Your task to perform on an android device: see creations saved in the google photos Image 0: 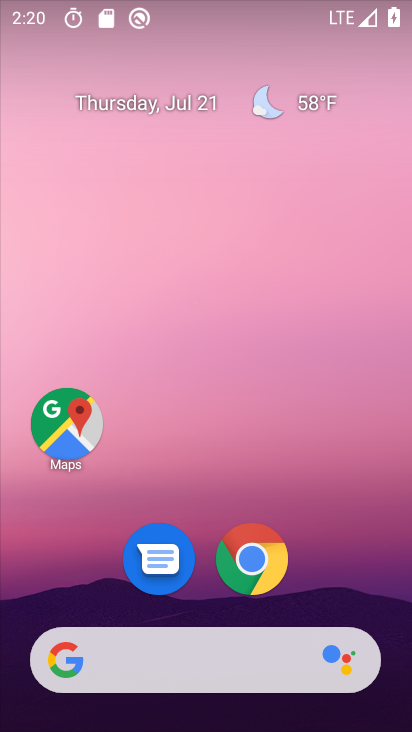
Step 0: drag from (376, 564) to (346, 124)
Your task to perform on an android device: see creations saved in the google photos Image 1: 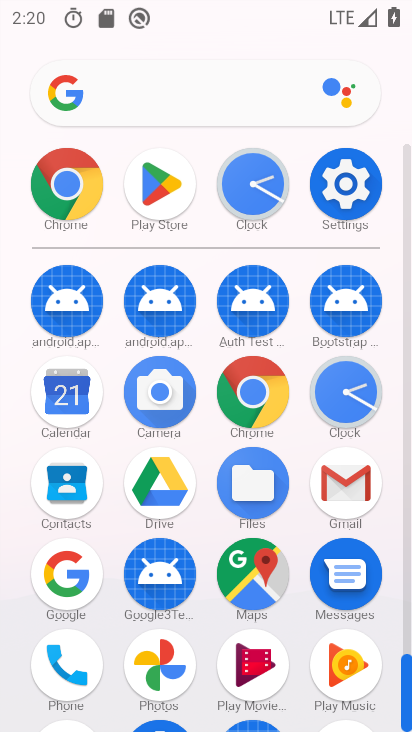
Step 1: click (176, 669)
Your task to perform on an android device: see creations saved in the google photos Image 2: 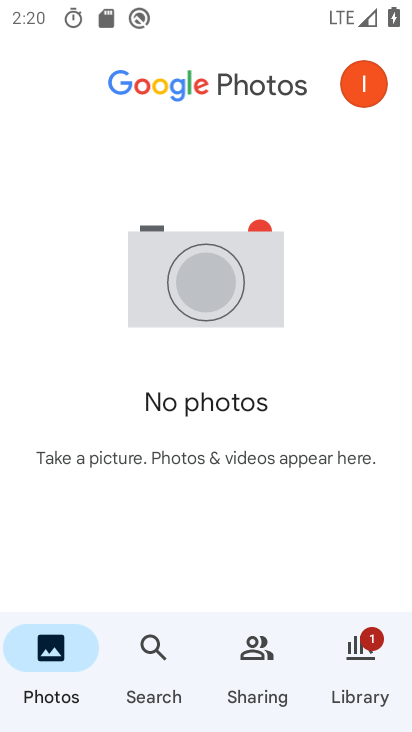
Step 2: click (154, 673)
Your task to perform on an android device: see creations saved in the google photos Image 3: 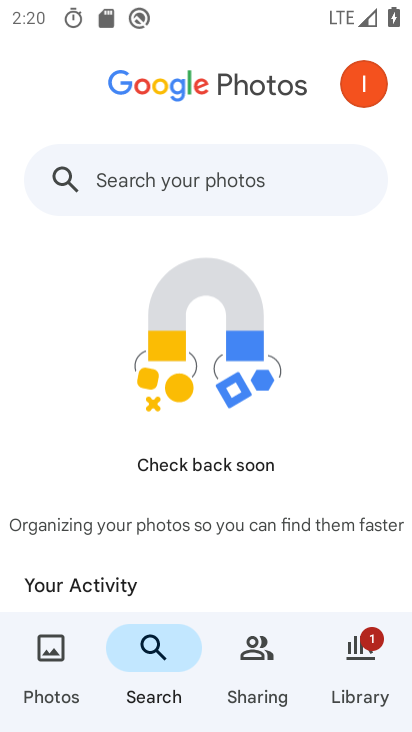
Step 3: drag from (251, 491) to (255, 389)
Your task to perform on an android device: see creations saved in the google photos Image 4: 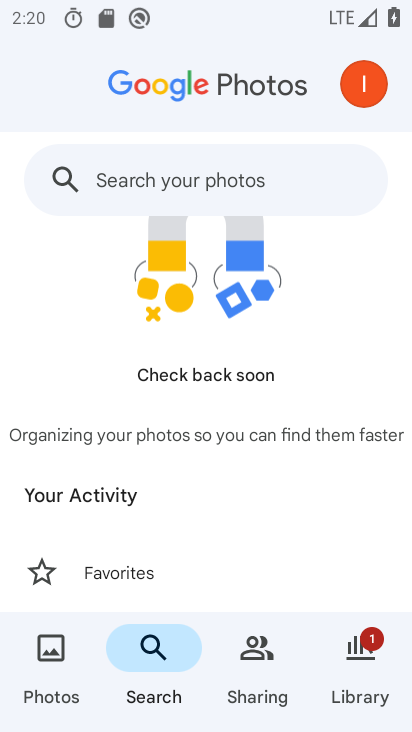
Step 4: drag from (227, 505) to (242, 382)
Your task to perform on an android device: see creations saved in the google photos Image 5: 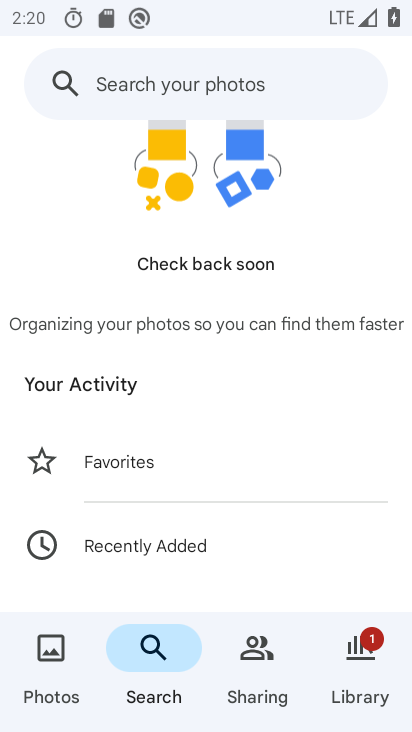
Step 5: drag from (230, 479) to (247, 358)
Your task to perform on an android device: see creations saved in the google photos Image 6: 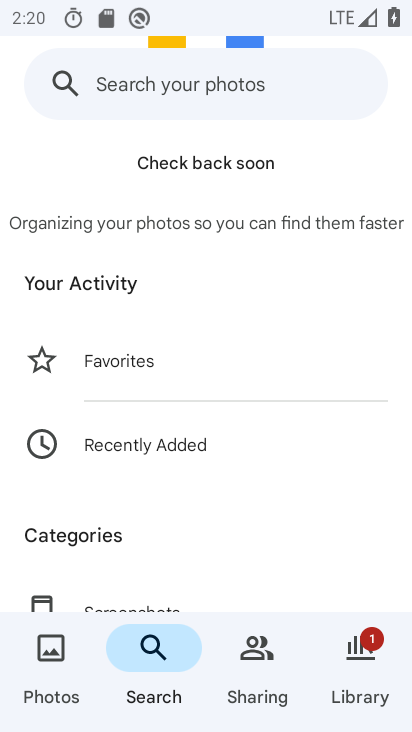
Step 6: drag from (224, 497) to (233, 357)
Your task to perform on an android device: see creations saved in the google photos Image 7: 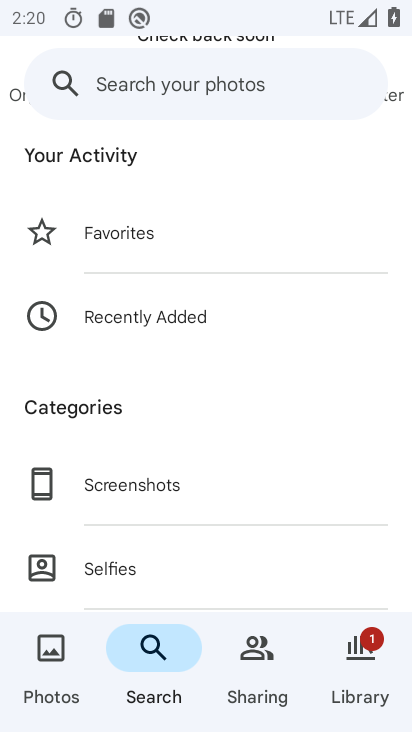
Step 7: drag from (233, 529) to (248, 367)
Your task to perform on an android device: see creations saved in the google photos Image 8: 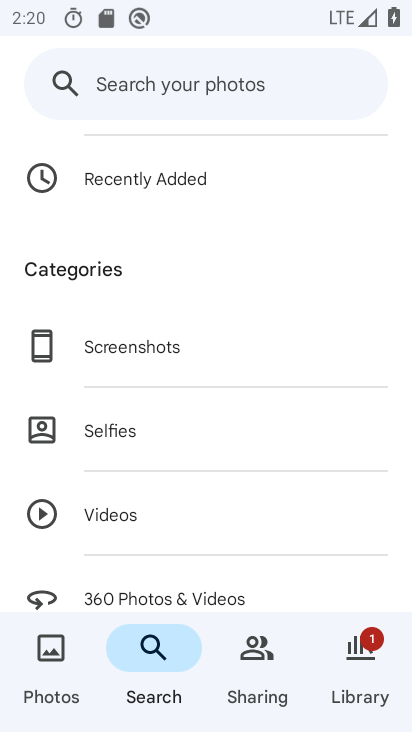
Step 8: drag from (225, 517) to (249, 361)
Your task to perform on an android device: see creations saved in the google photos Image 9: 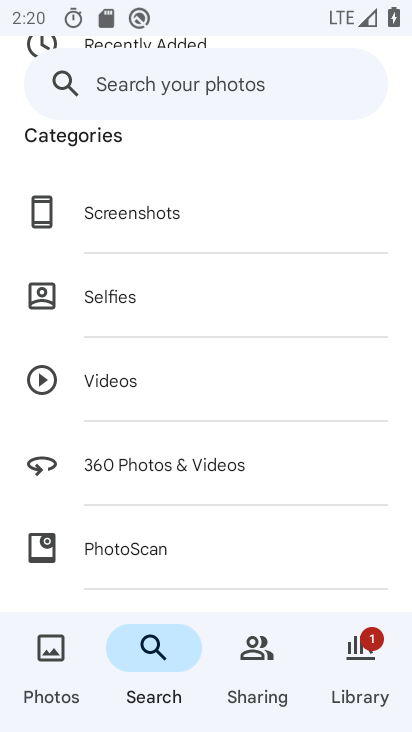
Step 9: drag from (255, 524) to (262, 371)
Your task to perform on an android device: see creations saved in the google photos Image 10: 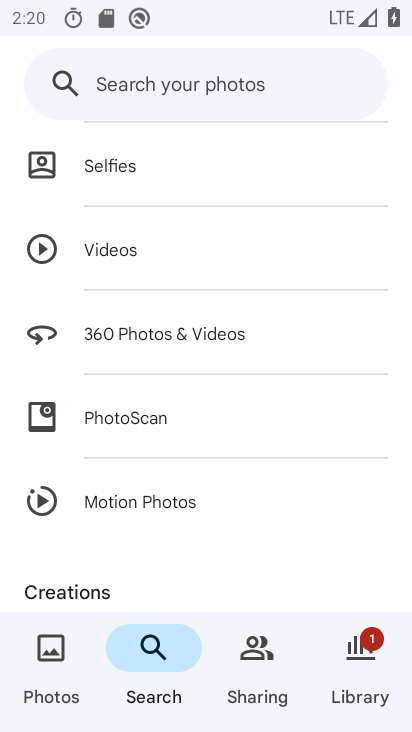
Step 10: drag from (217, 527) to (240, 367)
Your task to perform on an android device: see creations saved in the google photos Image 11: 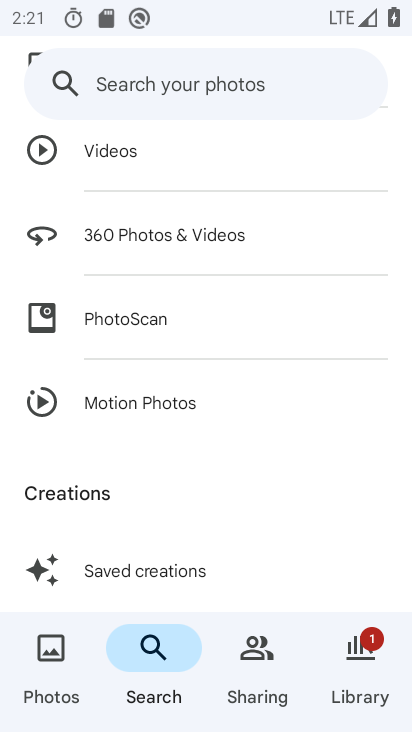
Step 11: click (206, 564)
Your task to perform on an android device: see creations saved in the google photos Image 12: 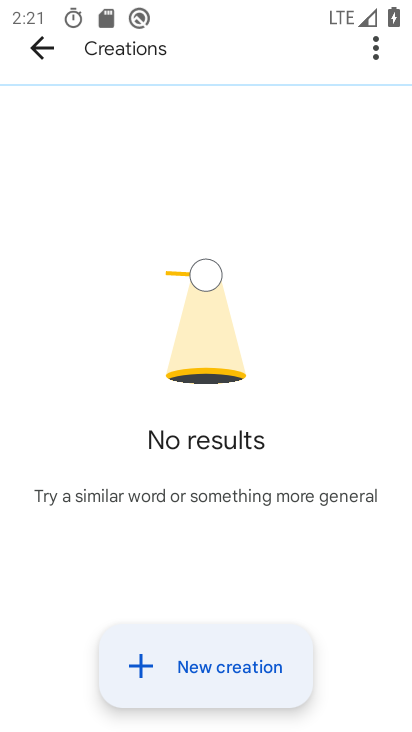
Step 12: task complete